Your task to perform on an android device: turn pop-ups off in chrome Image 0: 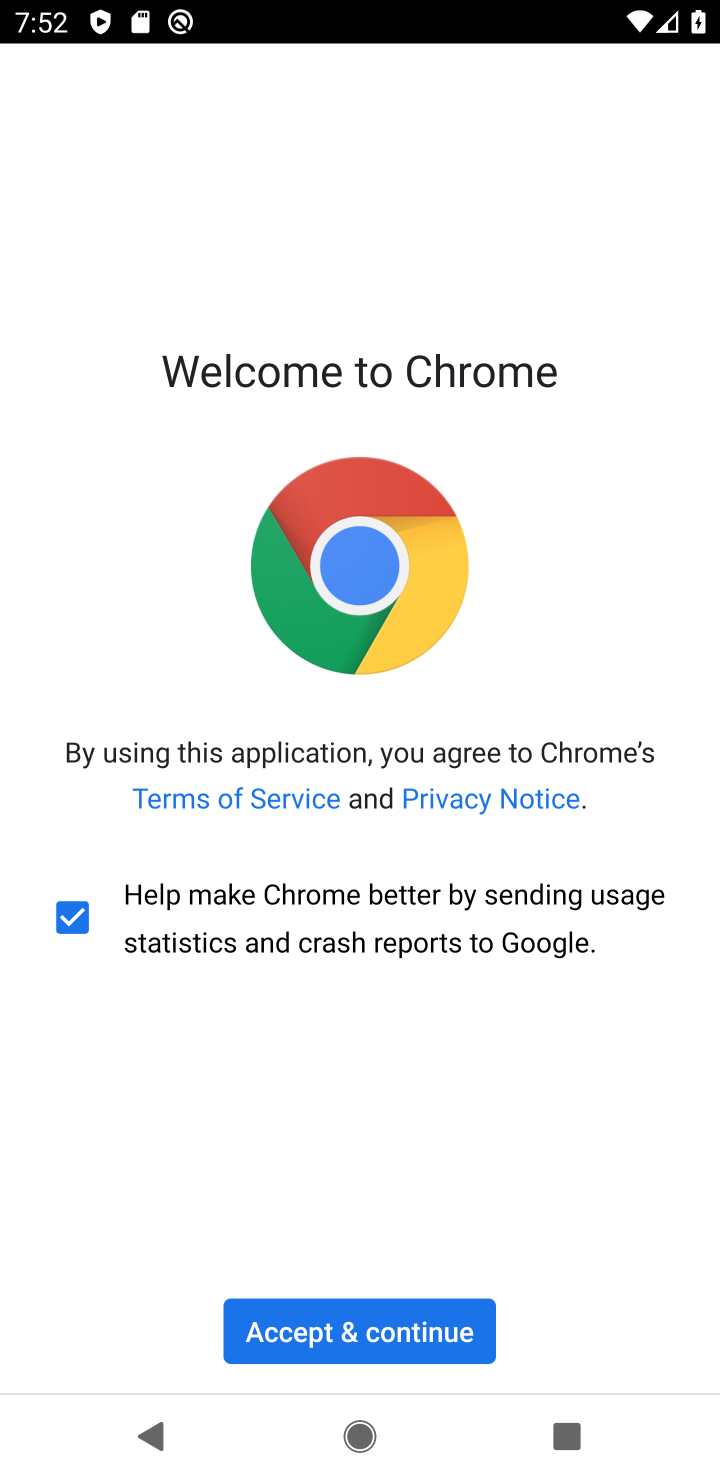
Step 0: click (413, 1345)
Your task to perform on an android device: turn pop-ups off in chrome Image 1: 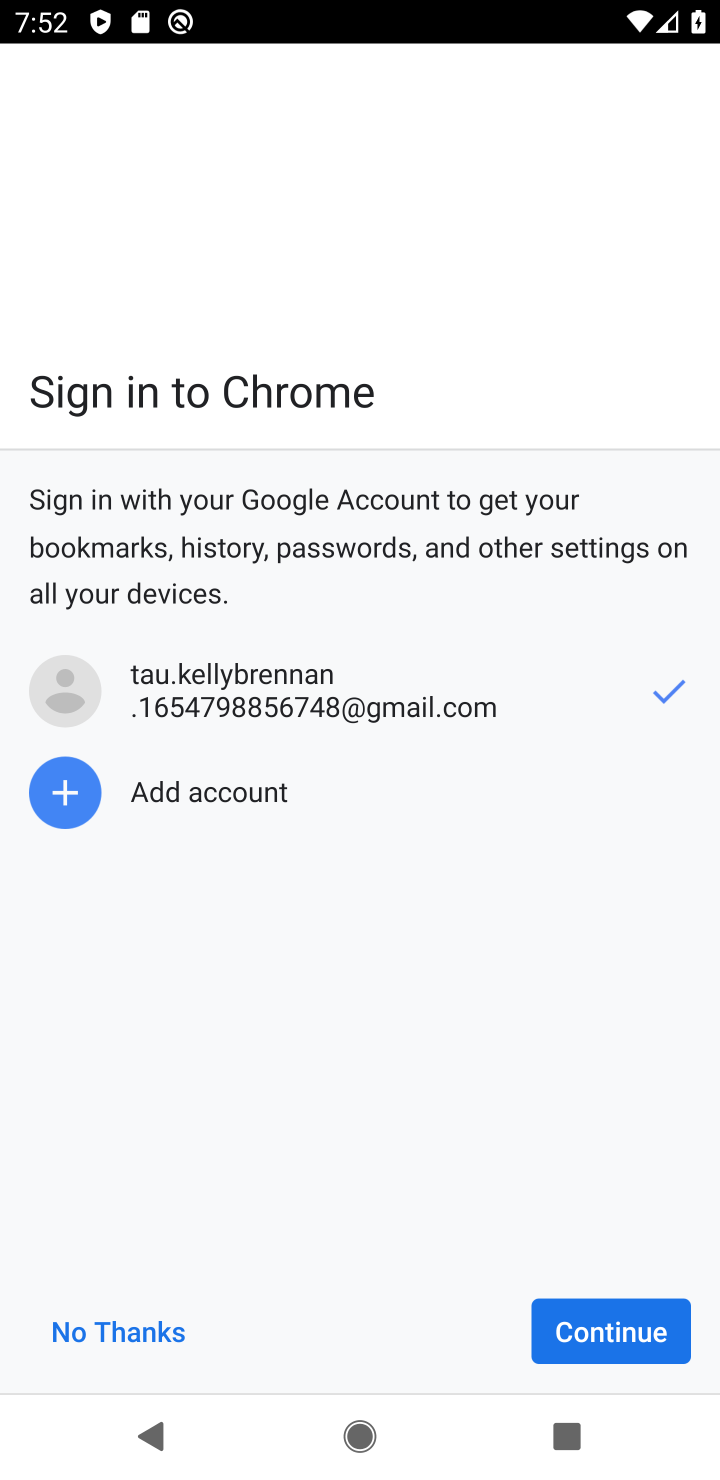
Step 1: click (589, 1308)
Your task to perform on an android device: turn pop-ups off in chrome Image 2: 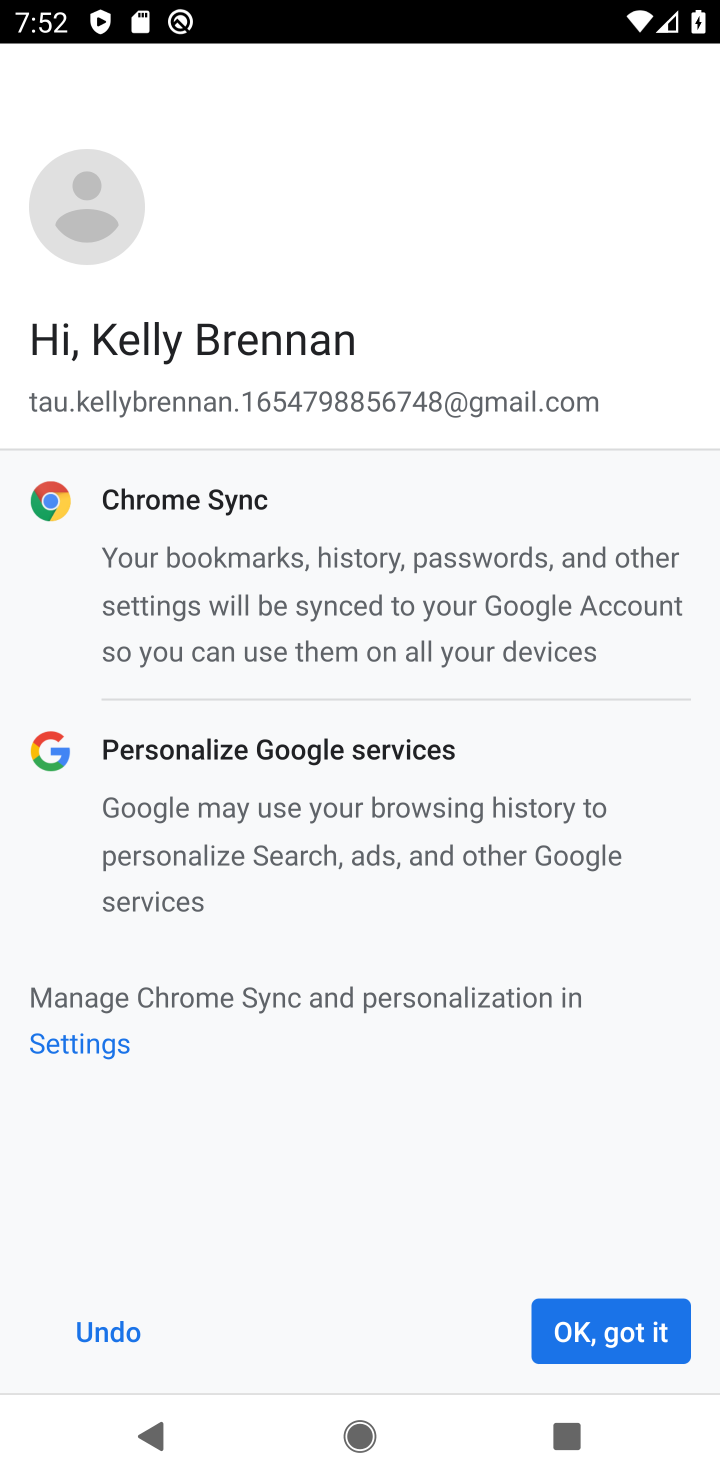
Step 2: click (598, 1338)
Your task to perform on an android device: turn pop-ups off in chrome Image 3: 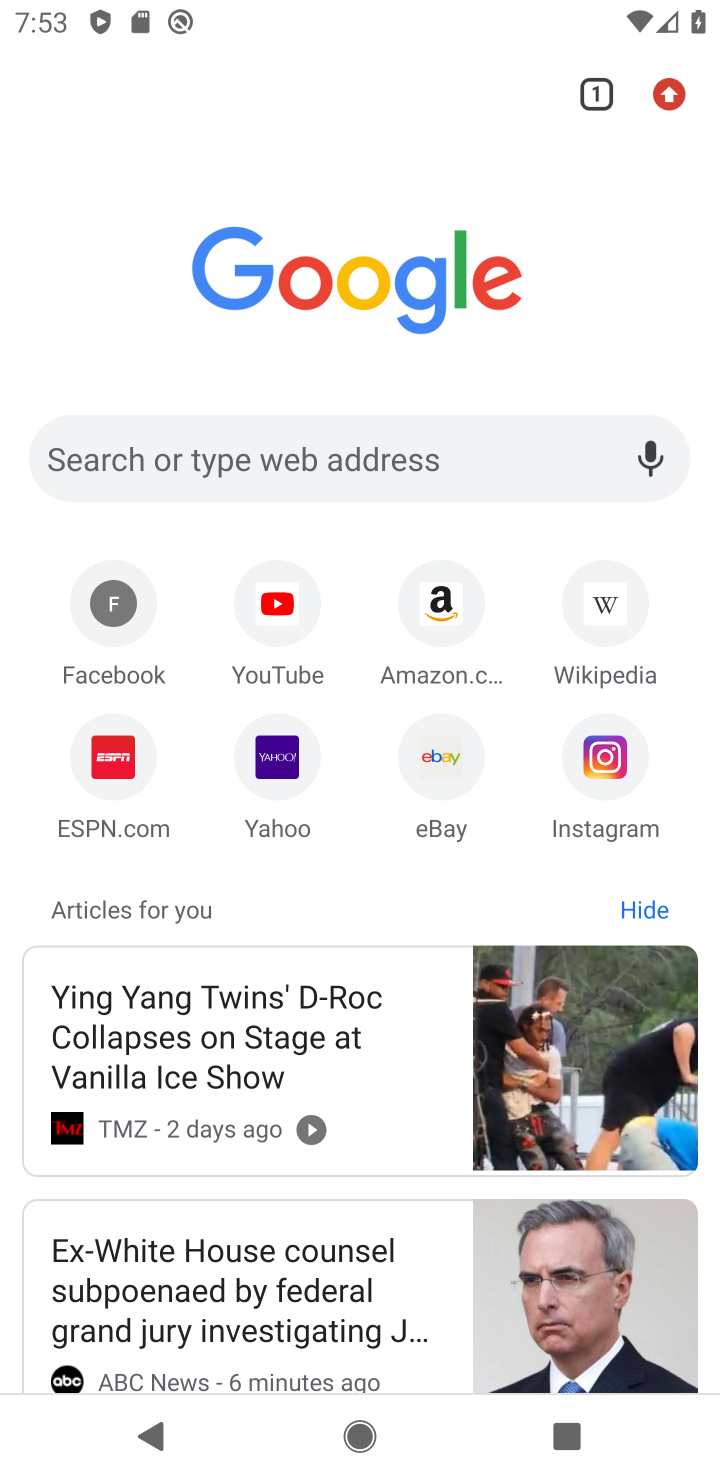
Step 3: press home button
Your task to perform on an android device: turn pop-ups off in chrome Image 4: 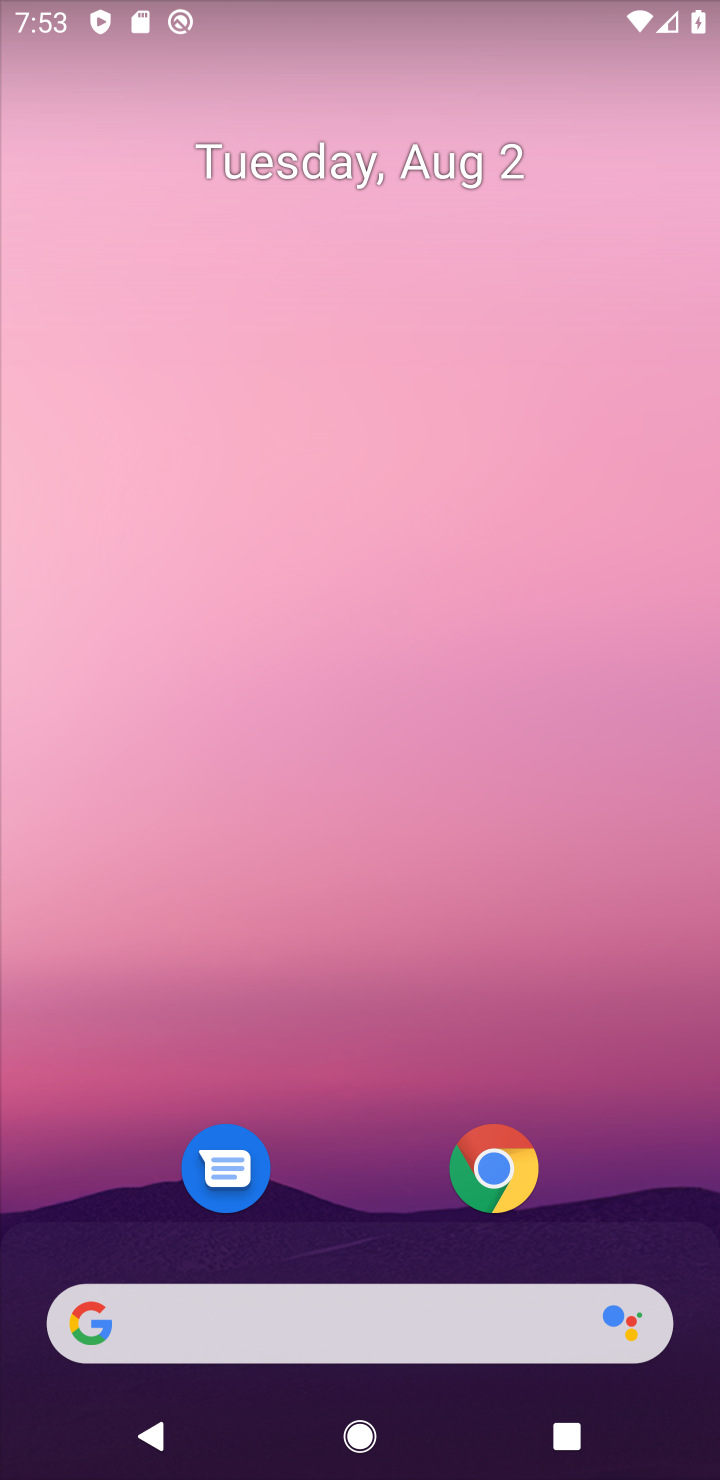
Step 4: drag from (365, 1071) to (340, 508)
Your task to perform on an android device: turn pop-ups off in chrome Image 5: 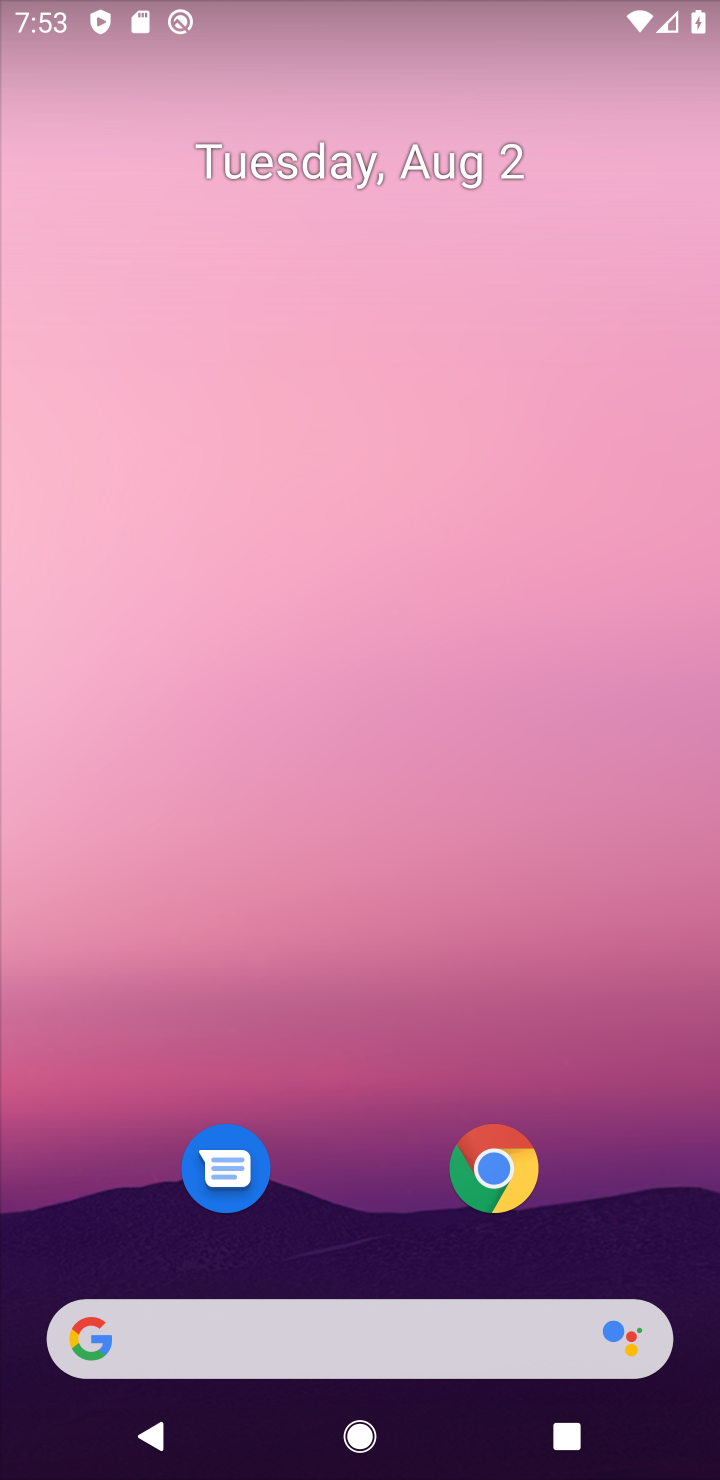
Step 5: drag from (337, 868) to (195, 246)
Your task to perform on an android device: turn pop-ups off in chrome Image 6: 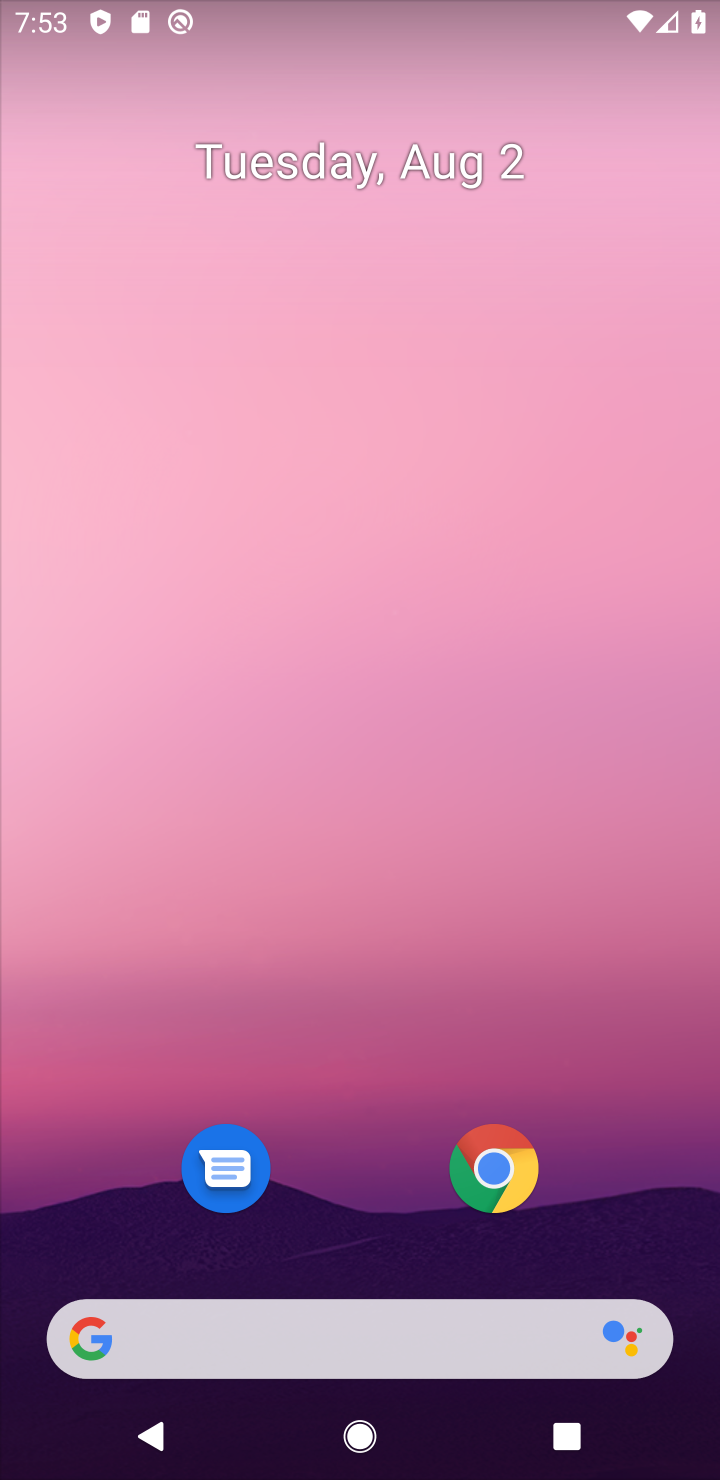
Step 6: drag from (387, 1171) to (362, 511)
Your task to perform on an android device: turn pop-ups off in chrome Image 7: 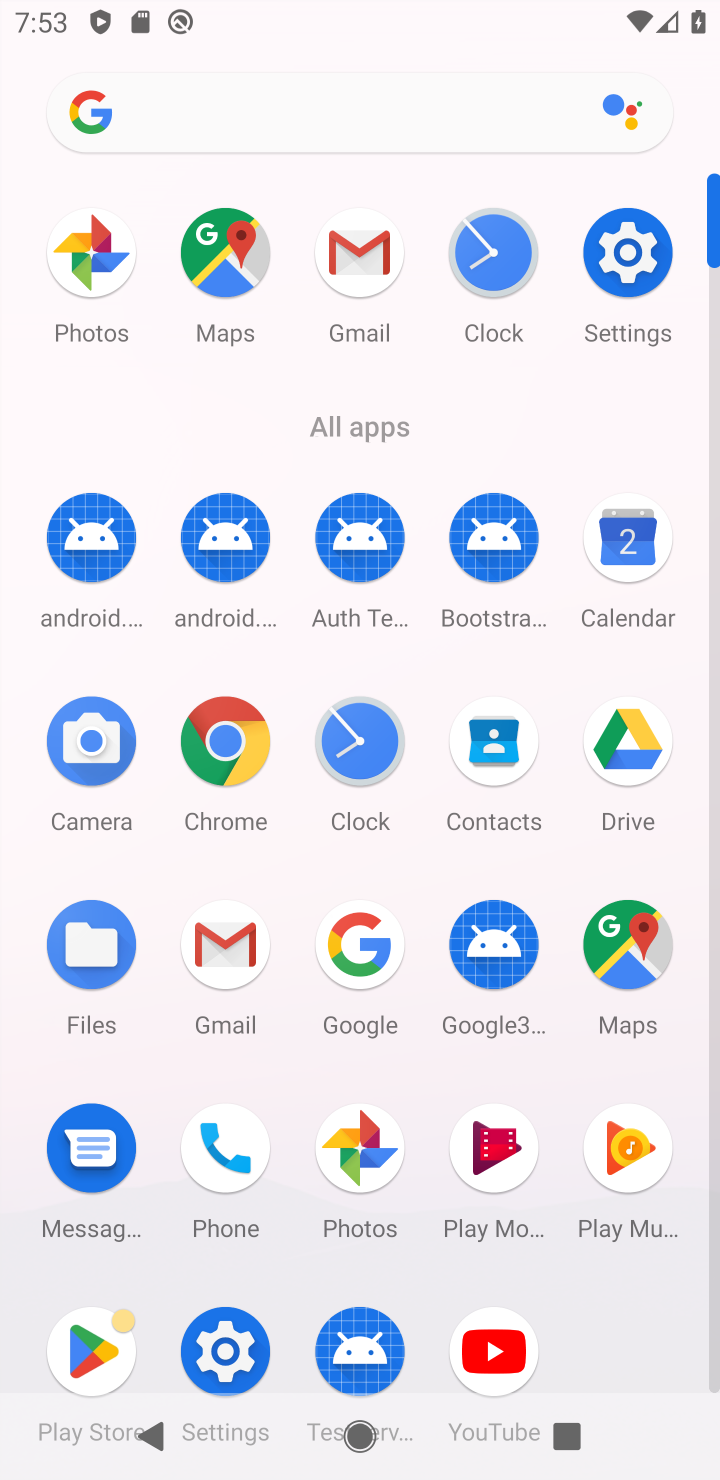
Step 7: click (234, 734)
Your task to perform on an android device: turn pop-ups off in chrome Image 8: 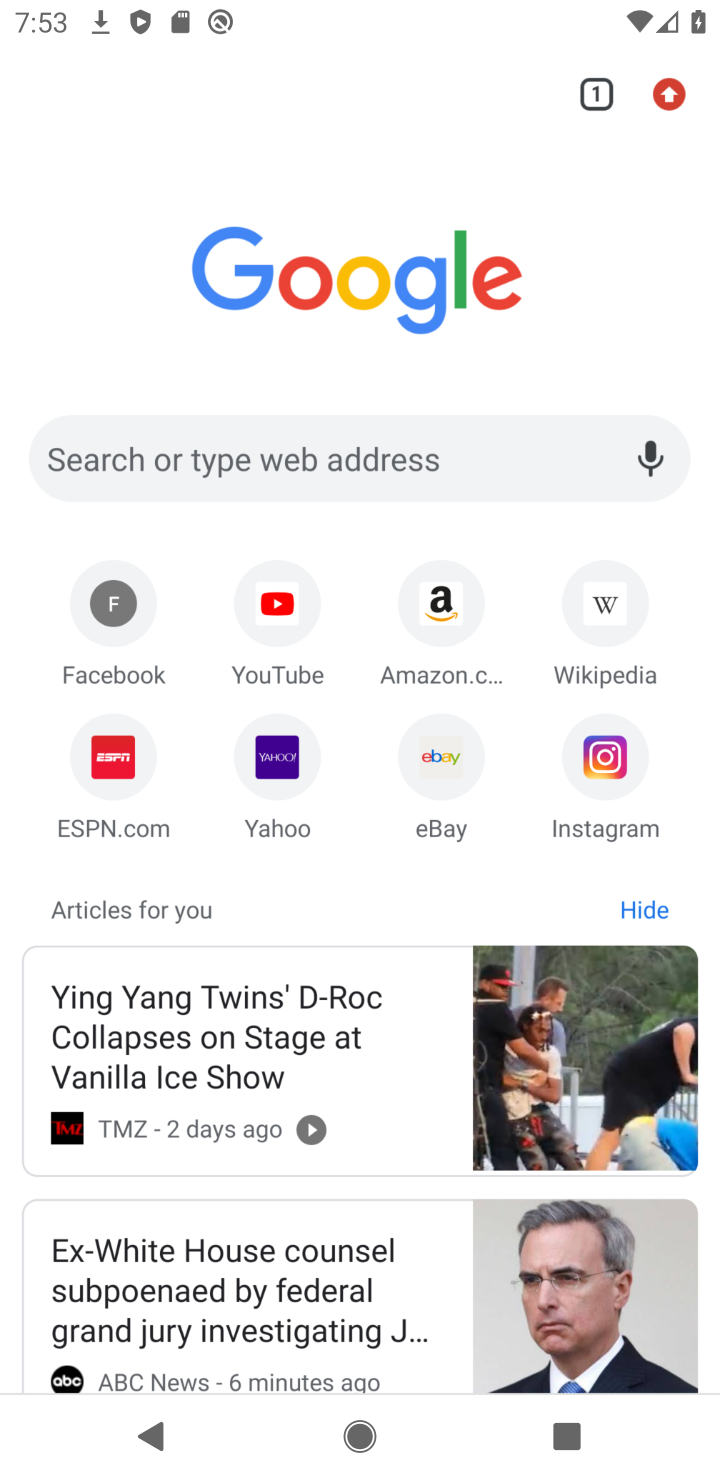
Step 8: click (678, 85)
Your task to perform on an android device: turn pop-ups off in chrome Image 9: 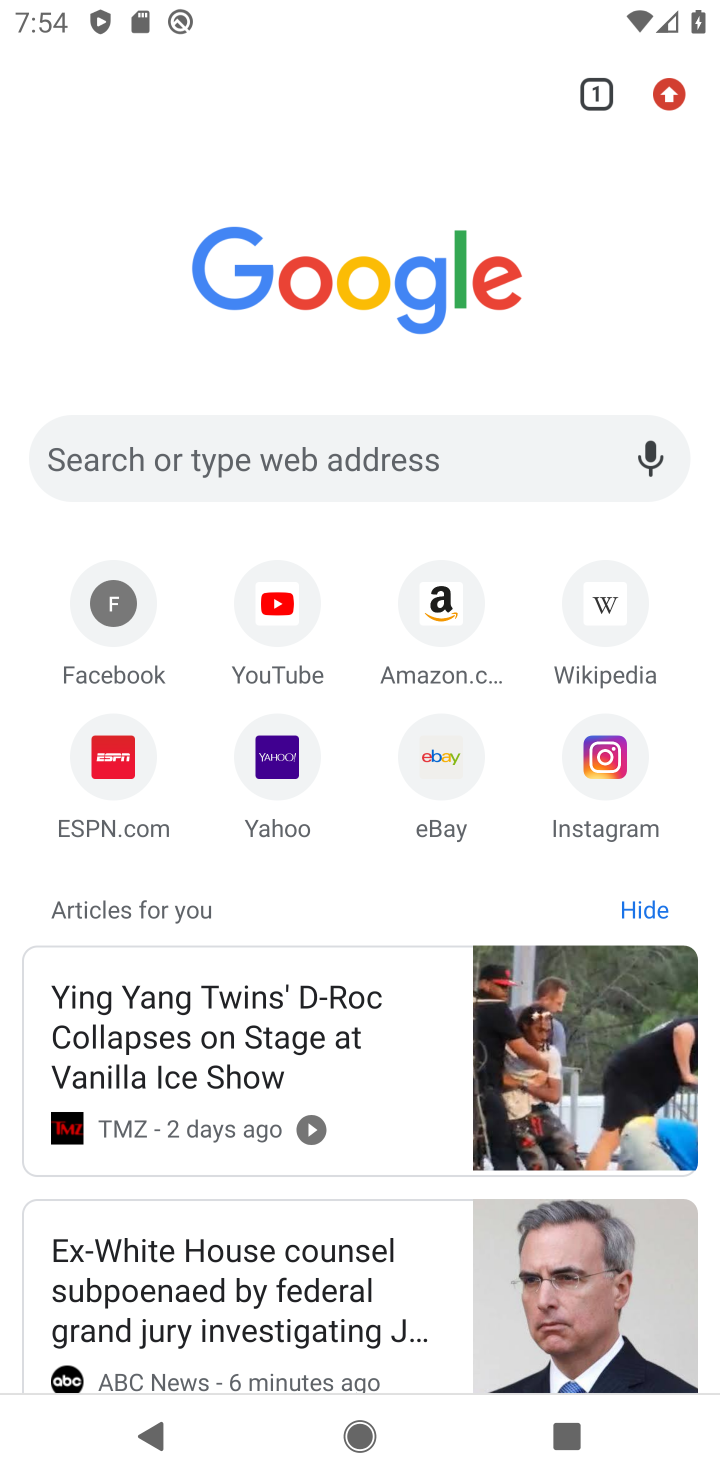
Step 9: click (660, 108)
Your task to perform on an android device: turn pop-ups off in chrome Image 10: 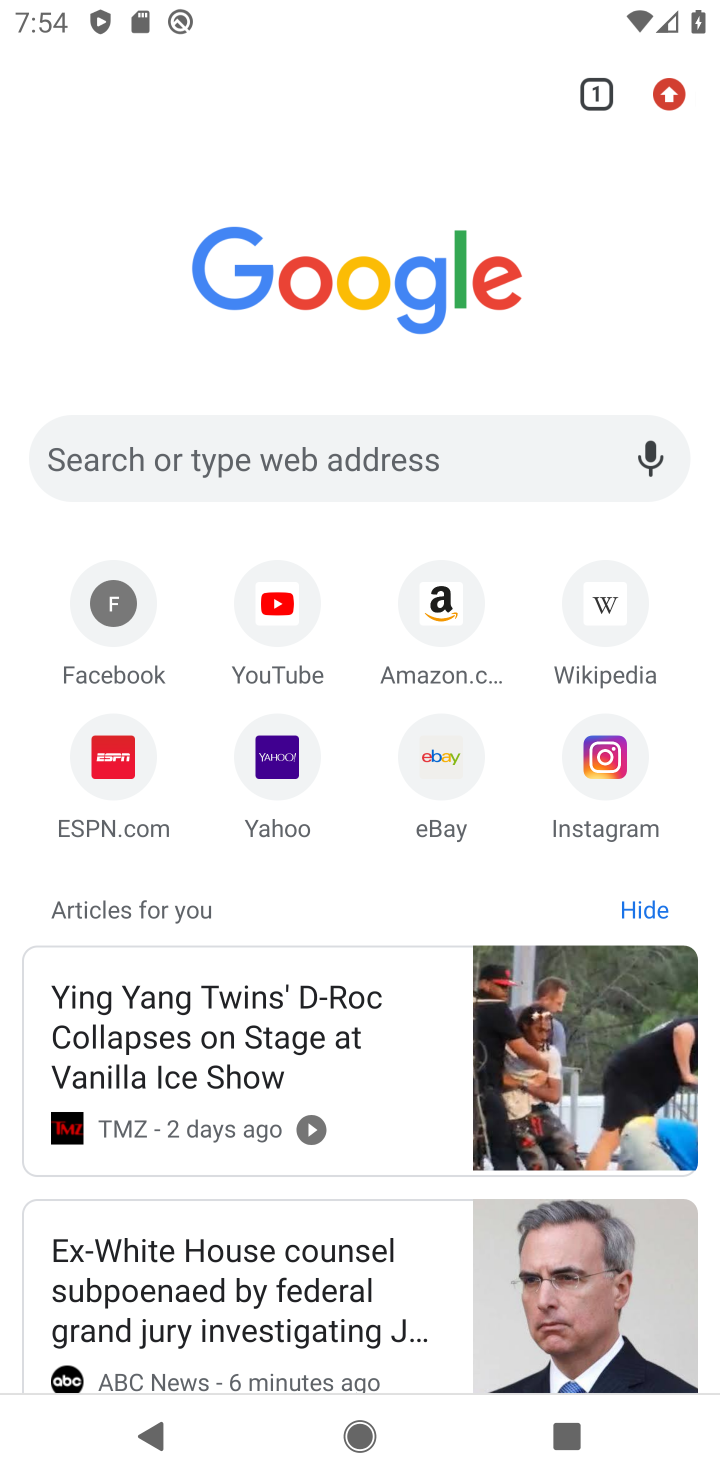
Step 10: click (670, 93)
Your task to perform on an android device: turn pop-ups off in chrome Image 11: 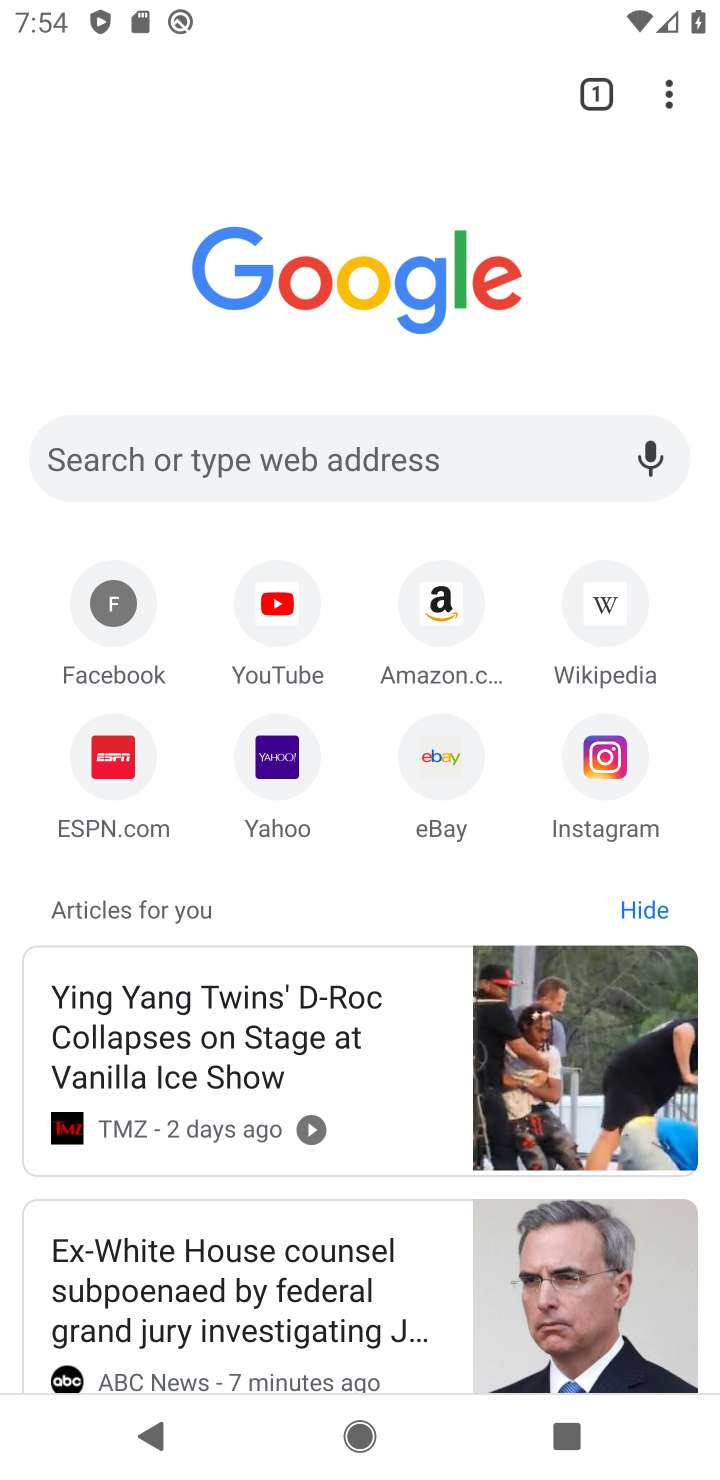
Step 11: task complete